Your task to perform on an android device: check storage Image 0: 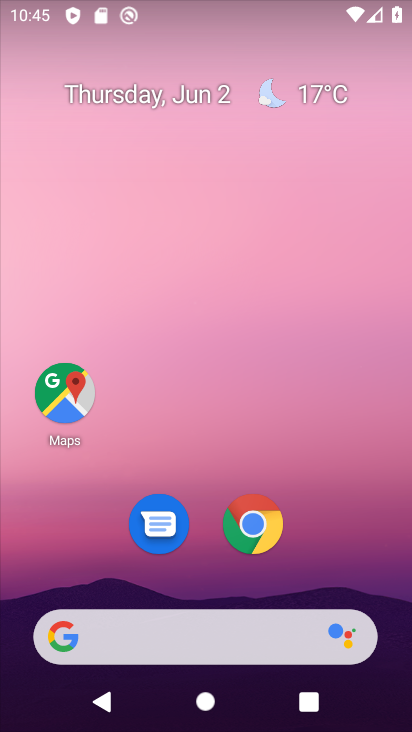
Step 0: drag from (210, 430) to (216, 4)
Your task to perform on an android device: check storage Image 1: 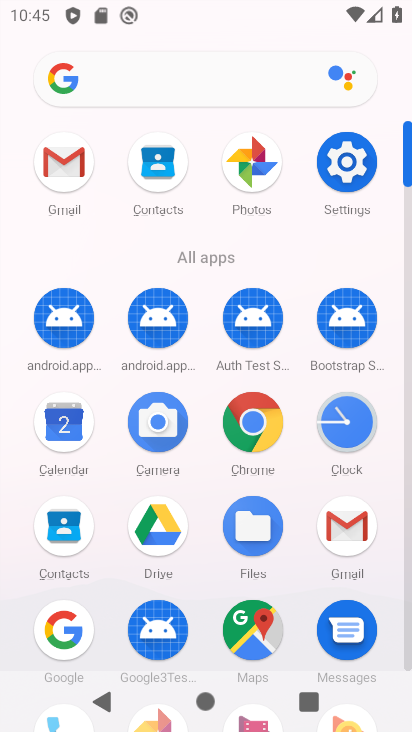
Step 1: click (345, 164)
Your task to perform on an android device: check storage Image 2: 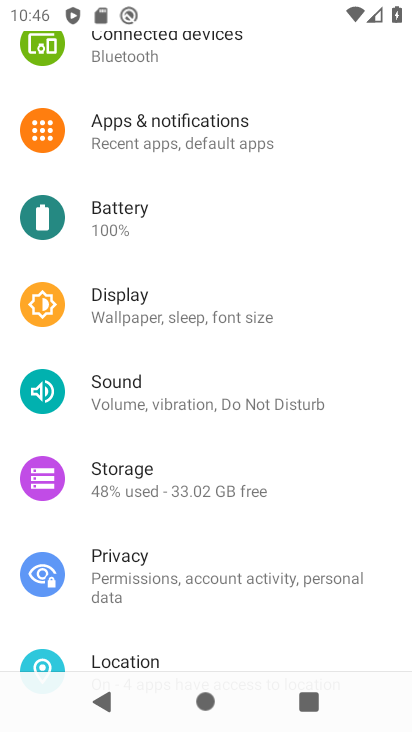
Step 2: click (198, 473)
Your task to perform on an android device: check storage Image 3: 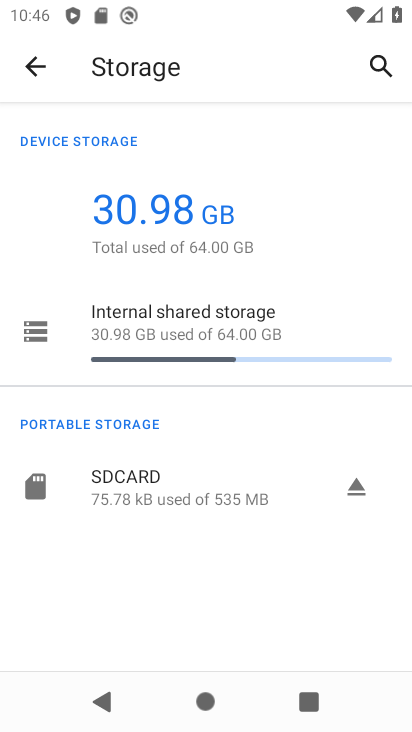
Step 3: task complete